Your task to perform on an android device: Open calendar and show me the first week of next month Image 0: 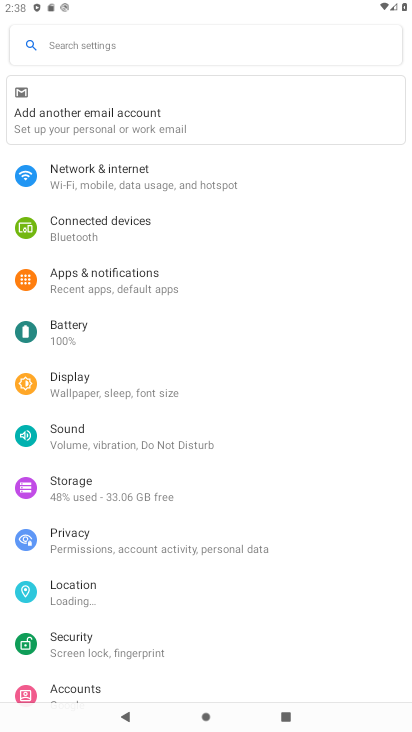
Step 0: press home button
Your task to perform on an android device: Open calendar and show me the first week of next month Image 1: 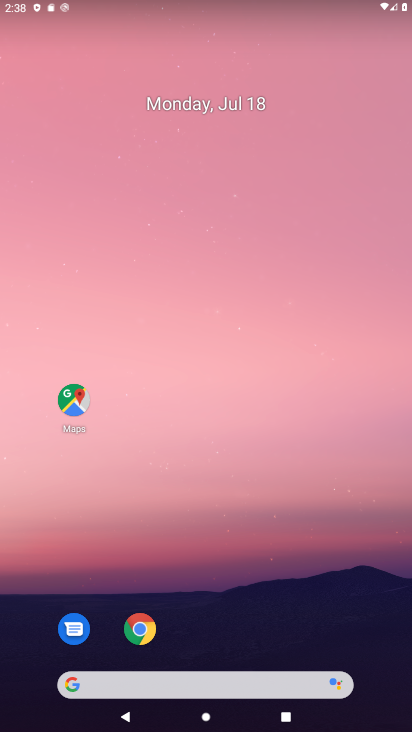
Step 1: drag from (228, 650) to (216, 287)
Your task to perform on an android device: Open calendar and show me the first week of next month Image 2: 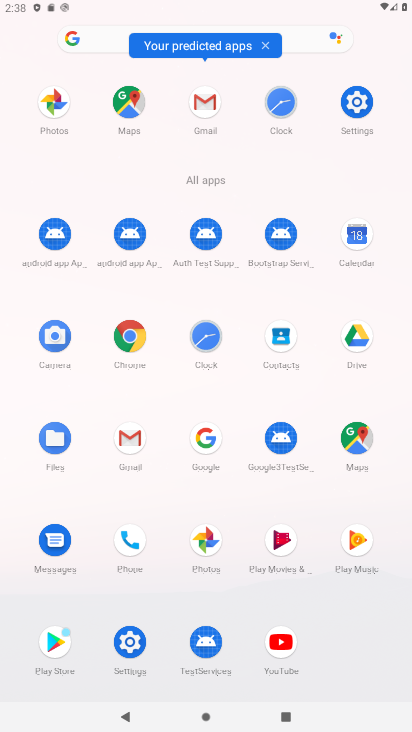
Step 2: click (361, 237)
Your task to perform on an android device: Open calendar and show me the first week of next month Image 3: 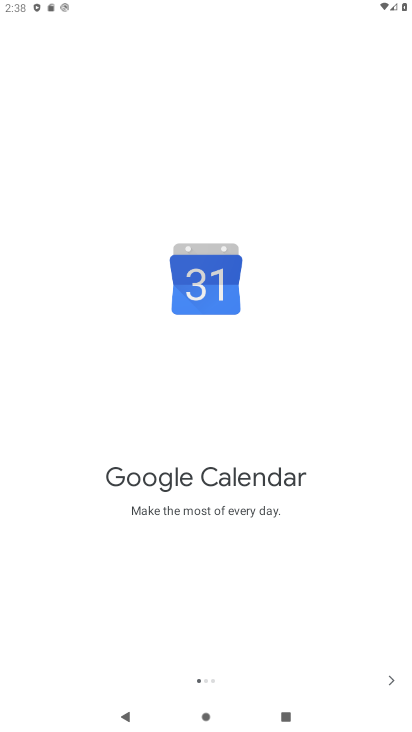
Step 3: click (387, 677)
Your task to perform on an android device: Open calendar and show me the first week of next month Image 4: 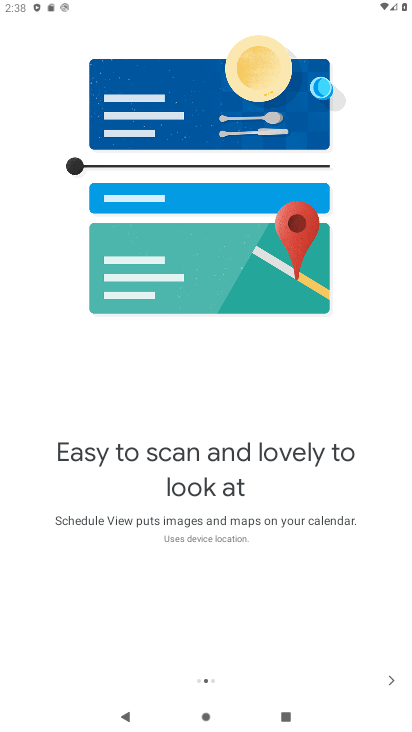
Step 4: click (385, 681)
Your task to perform on an android device: Open calendar and show me the first week of next month Image 5: 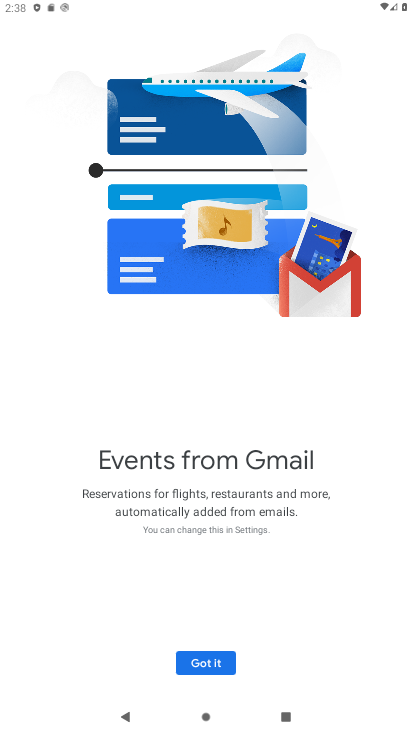
Step 5: click (225, 665)
Your task to perform on an android device: Open calendar and show me the first week of next month Image 6: 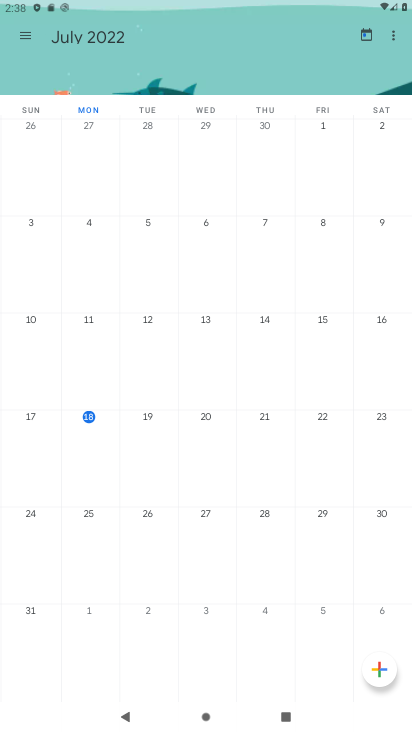
Step 6: click (21, 26)
Your task to perform on an android device: Open calendar and show me the first week of next month Image 7: 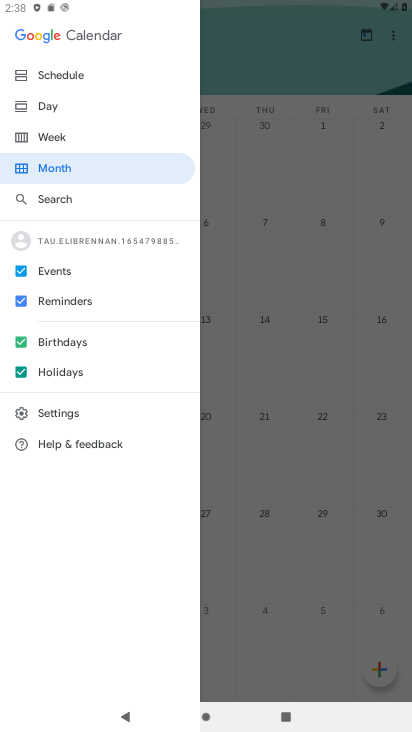
Step 7: click (68, 134)
Your task to perform on an android device: Open calendar and show me the first week of next month Image 8: 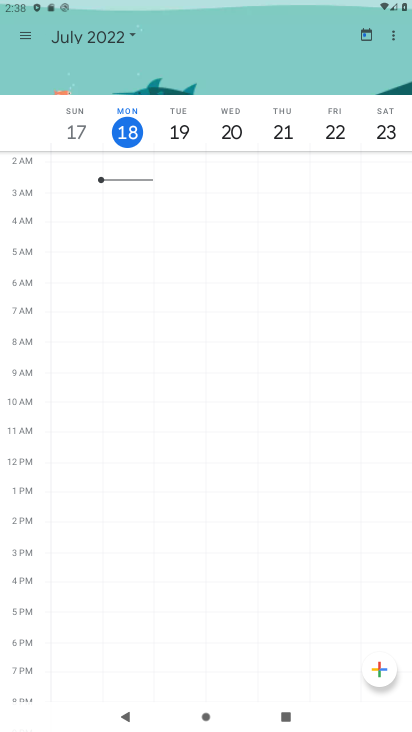
Step 8: task complete